Your task to perform on an android device: Go to sound settings Image 0: 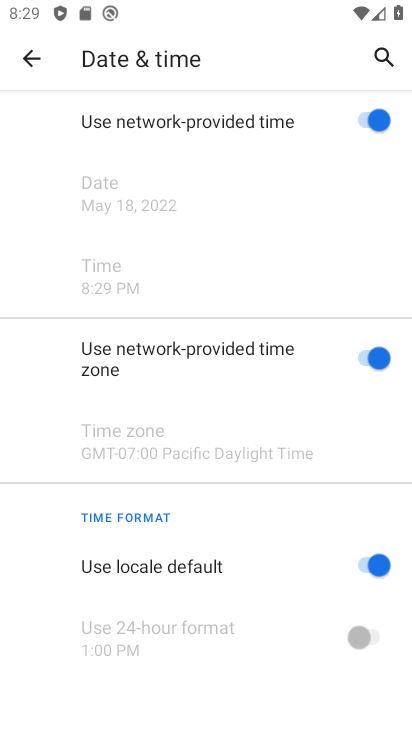
Step 0: press home button
Your task to perform on an android device: Go to sound settings Image 1: 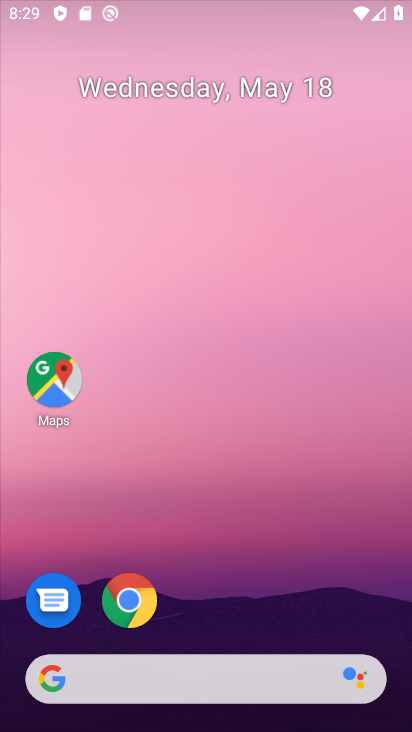
Step 1: drag from (35, 603) to (291, 124)
Your task to perform on an android device: Go to sound settings Image 2: 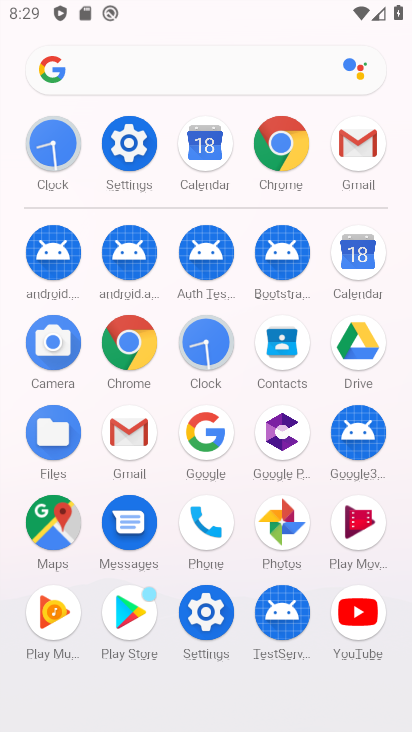
Step 2: click (120, 152)
Your task to perform on an android device: Go to sound settings Image 3: 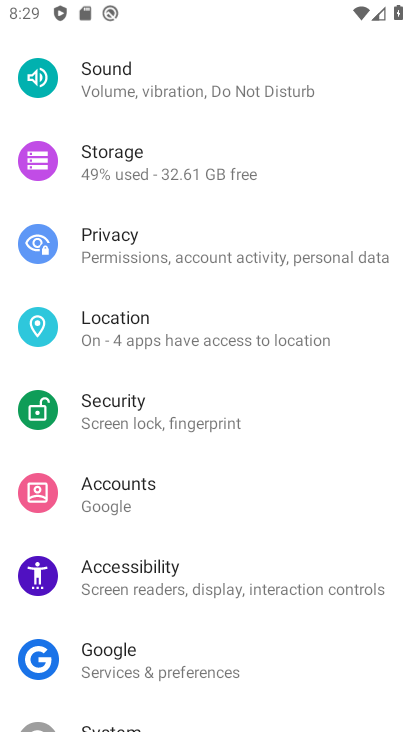
Step 3: click (161, 84)
Your task to perform on an android device: Go to sound settings Image 4: 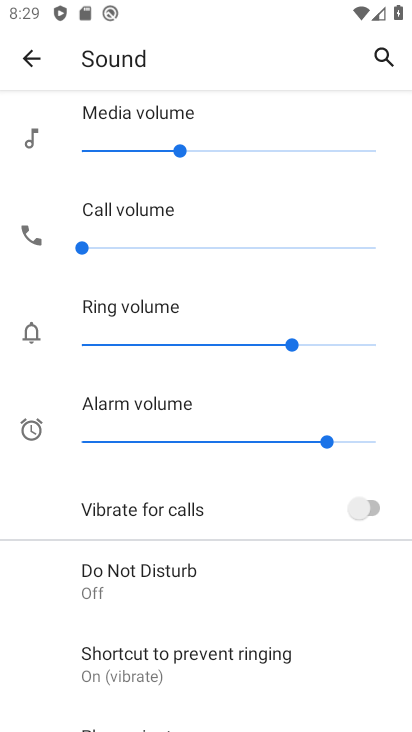
Step 4: task complete